Your task to perform on an android device: change the upload size in google photos Image 0: 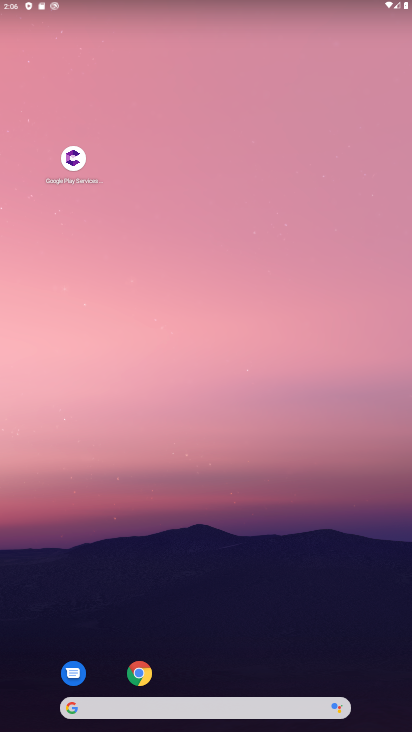
Step 0: drag from (243, 533) to (305, 140)
Your task to perform on an android device: change the upload size in google photos Image 1: 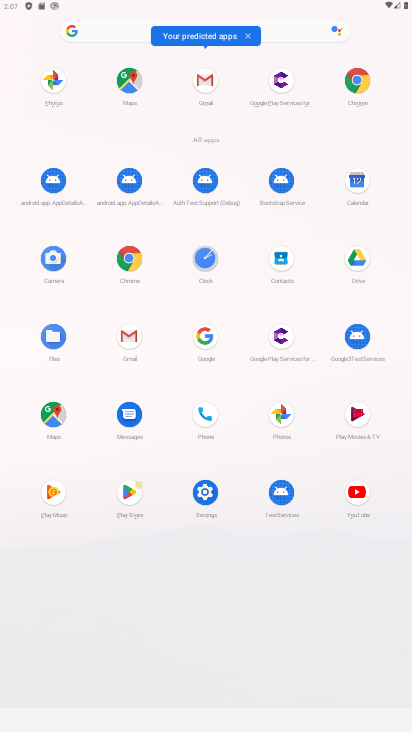
Step 1: click (57, 76)
Your task to perform on an android device: change the upload size in google photos Image 2: 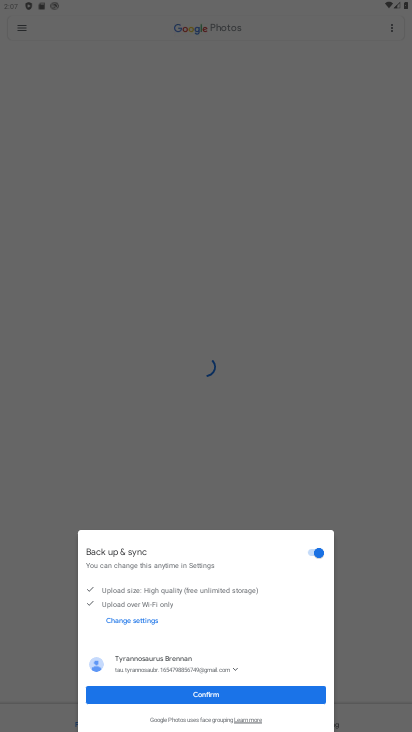
Step 2: click (281, 701)
Your task to perform on an android device: change the upload size in google photos Image 3: 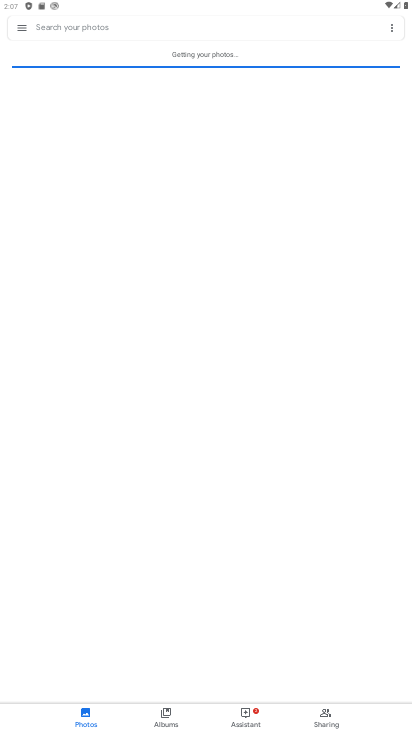
Step 3: click (17, 26)
Your task to perform on an android device: change the upload size in google photos Image 4: 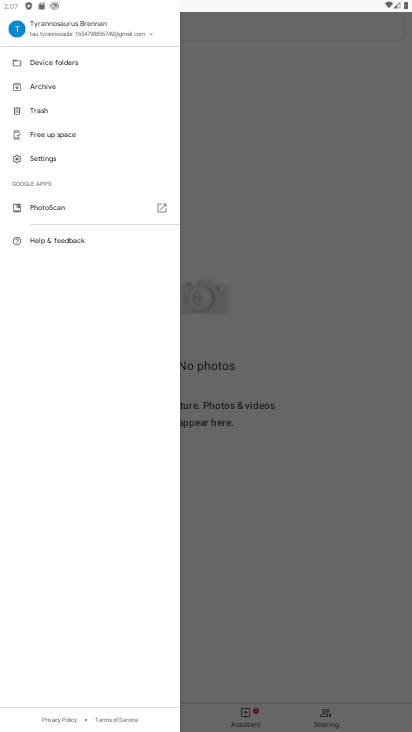
Step 4: click (41, 148)
Your task to perform on an android device: change the upload size in google photos Image 5: 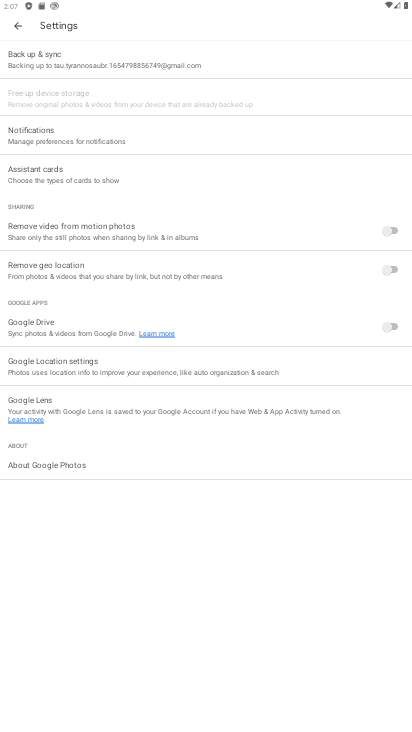
Step 5: click (79, 60)
Your task to perform on an android device: change the upload size in google photos Image 6: 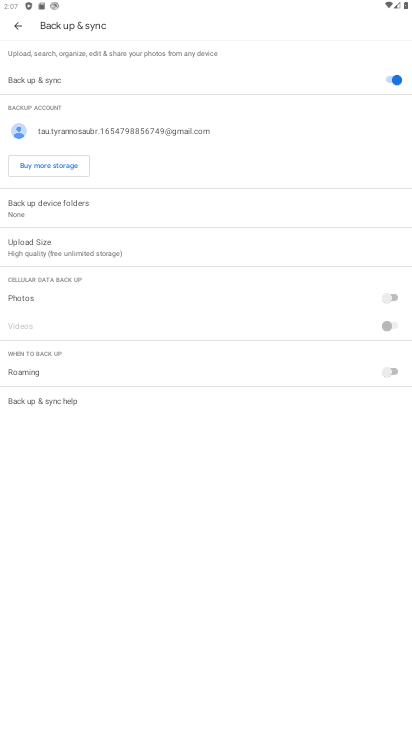
Step 6: click (116, 239)
Your task to perform on an android device: change the upload size in google photos Image 7: 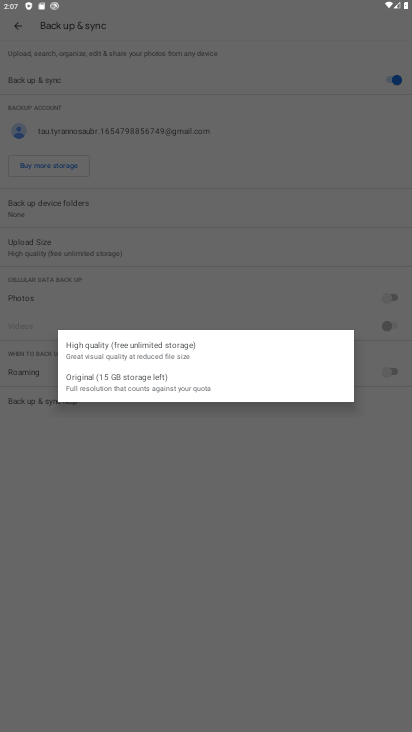
Step 7: click (177, 385)
Your task to perform on an android device: change the upload size in google photos Image 8: 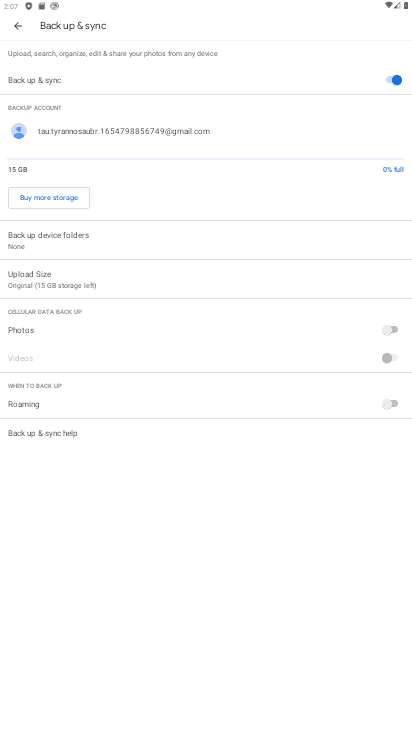
Step 8: task complete